Your task to perform on an android device: Go to Yahoo.com Image 0: 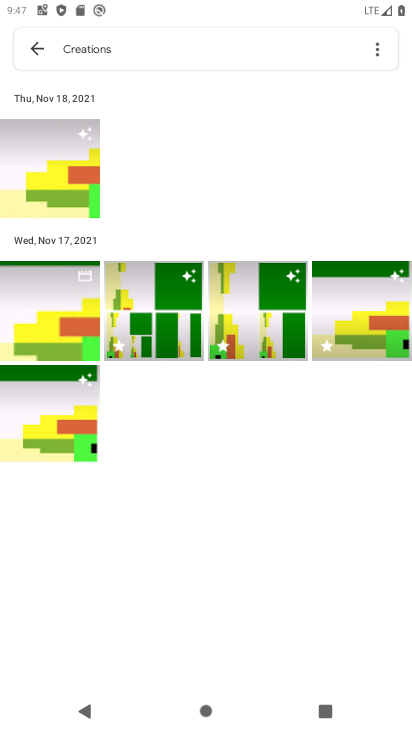
Step 0: press home button
Your task to perform on an android device: Go to Yahoo.com Image 1: 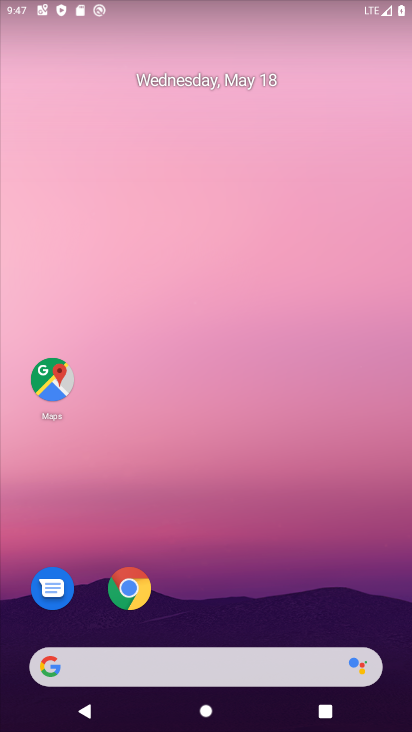
Step 1: click (220, 582)
Your task to perform on an android device: Go to Yahoo.com Image 2: 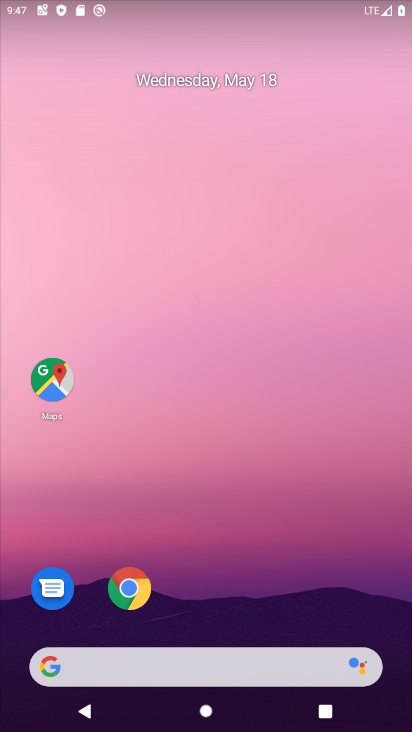
Step 2: click (131, 590)
Your task to perform on an android device: Go to Yahoo.com Image 3: 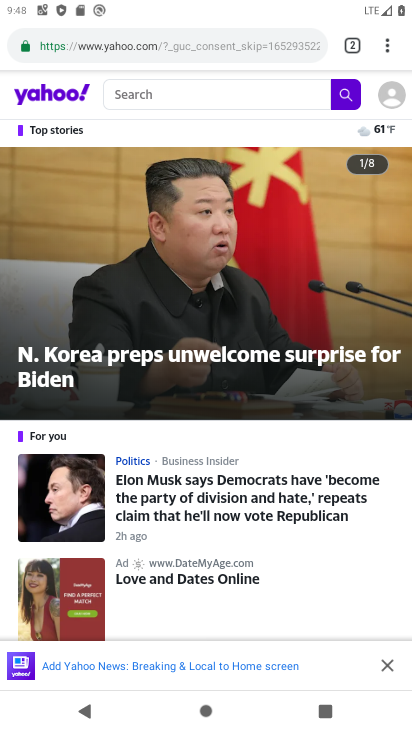
Step 3: task complete